Your task to perform on an android device: turn off javascript in the chrome app Image 0: 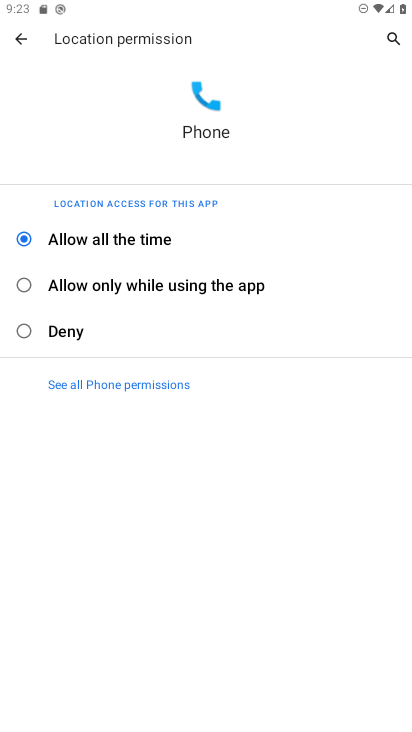
Step 0: press home button
Your task to perform on an android device: turn off javascript in the chrome app Image 1: 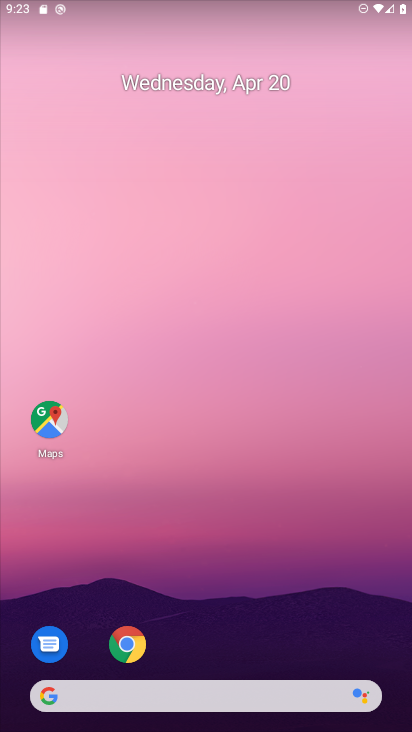
Step 1: drag from (314, 620) to (269, 131)
Your task to perform on an android device: turn off javascript in the chrome app Image 2: 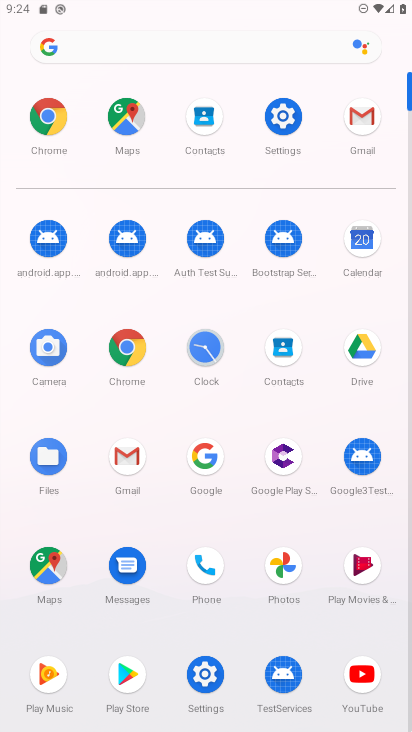
Step 2: click (44, 112)
Your task to perform on an android device: turn off javascript in the chrome app Image 3: 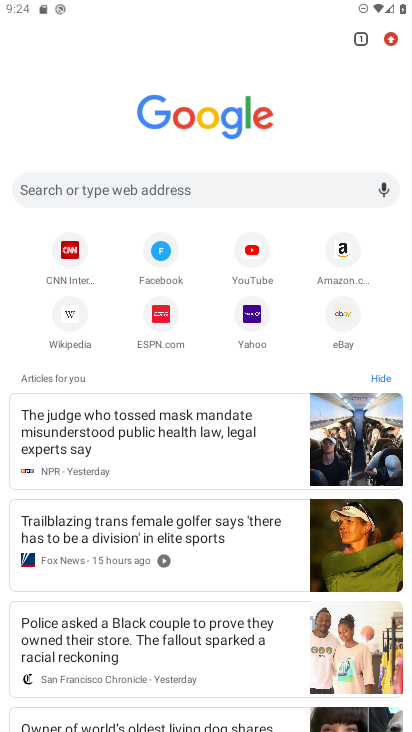
Step 3: click (394, 39)
Your task to perform on an android device: turn off javascript in the chrome app Image 4: 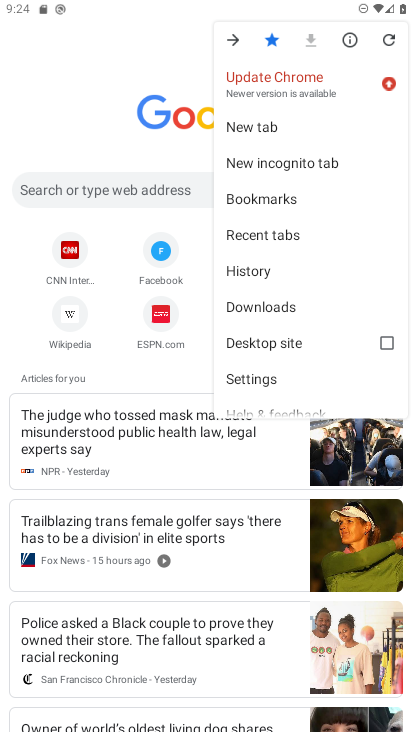
Step 4: click (277, 377)
Your task to perform on an android device: turn off javascript in the chrome app Image 5: 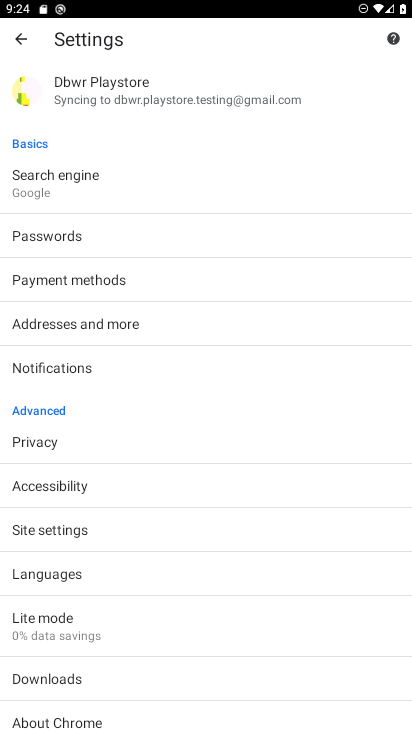
Step 5: click (201, 534)
Your task to perform on an android device: turn off javascript in the chrome app Image 6: 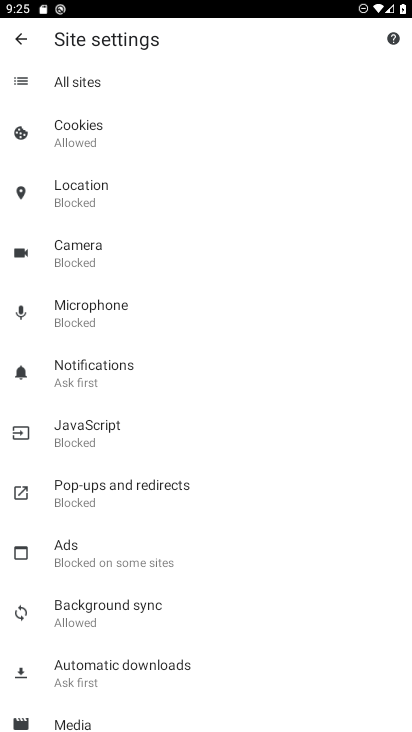
Step 6: click (98, 414)
Your task to perform on an android device: turn off javascript in the chrome app Image 7: 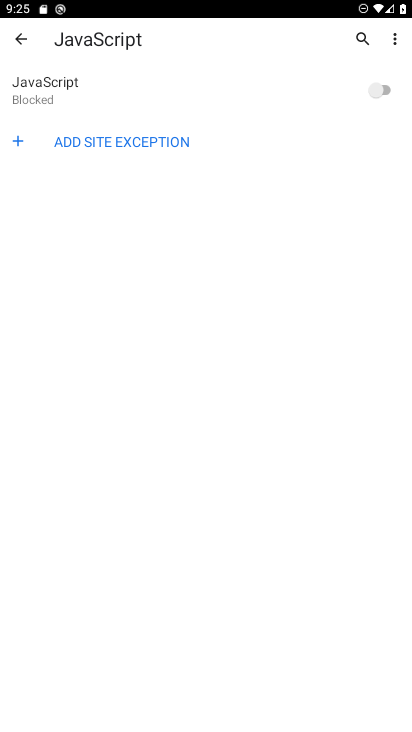
Step 7: task complete